Your task to perform on an android device: Open my contact list Image 0: 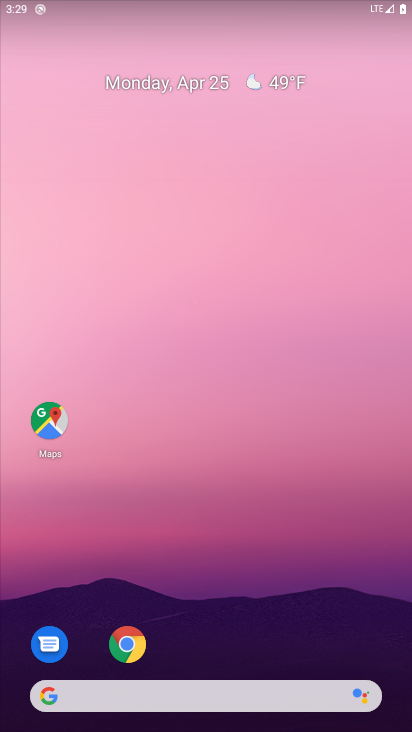
Step 0: click (121, 639)
Your task to perform on an android device: Open my contact list Image 1: 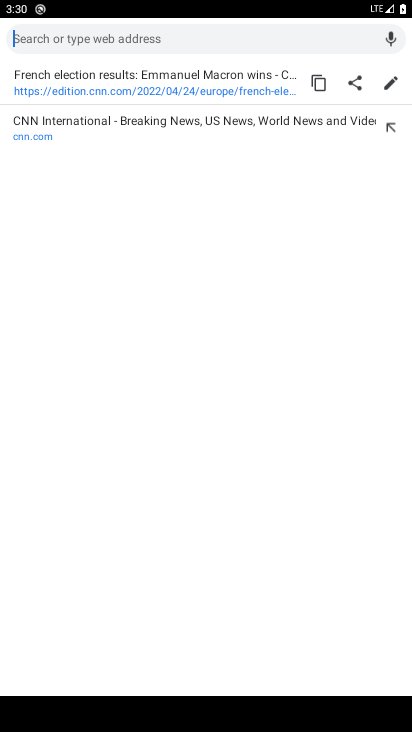
Step 1: type "reddit"
Your task to perform on an android device: Open my contact list Image 2: 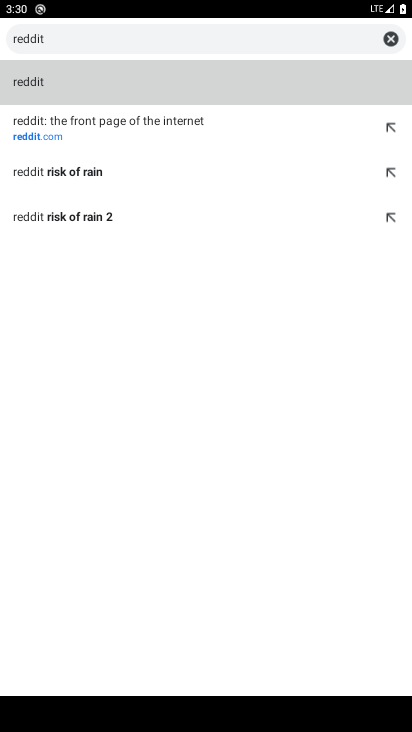
Step 2: click (128, 127)
Your task to perform on an android device: Open my contact list Image 3: 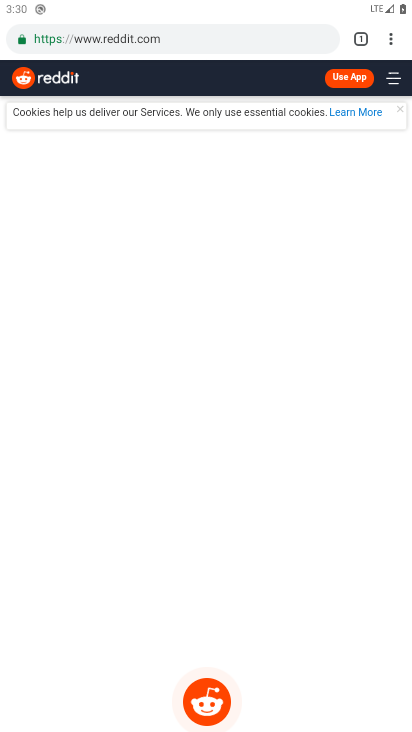
Step 3: task complete